Your task to perform on an android device: set the timer Image 0: 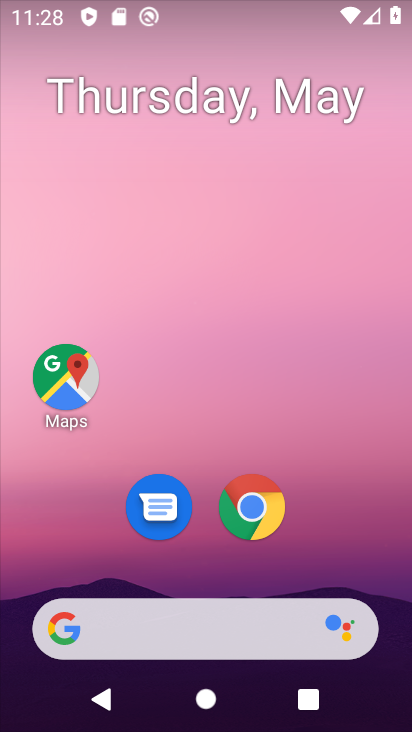
Step 0: drag from (281, 644) to (363, 4)
Your task to perform on an android device: set the timer Image 1: 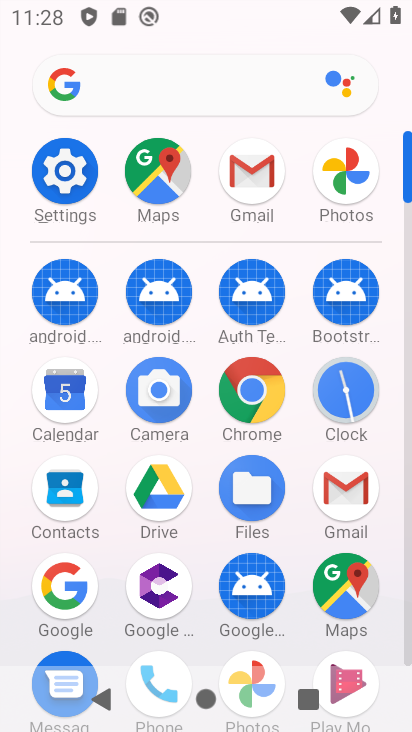
Step 1: click (360, 386)
Your task to perform on an android device: set the timer Image 2: 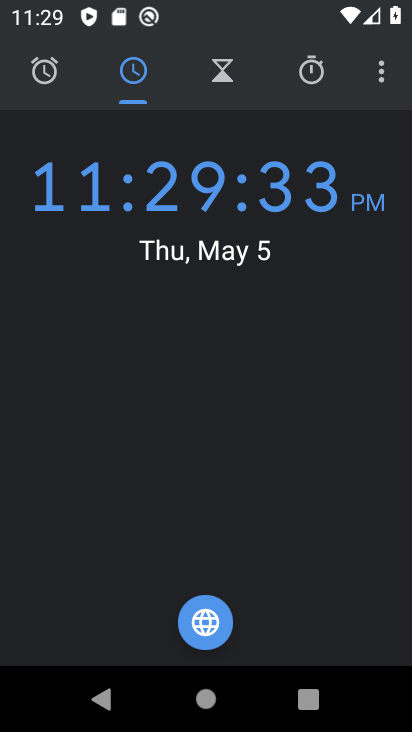
Step 2: click (313, 72)
Your task to perform on an android device: set the timer Image 3: 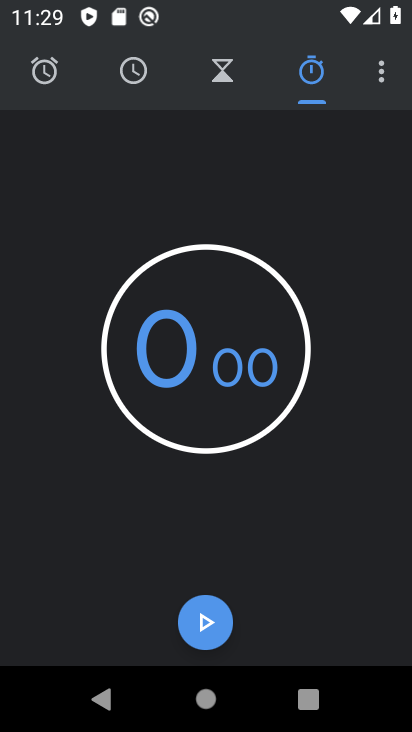
Step 3: click (237, 79)
Your task to perform on an android device: set the timer Image 4: 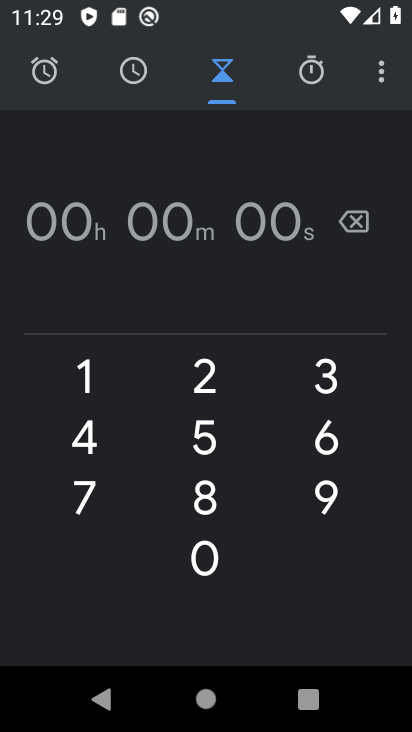
Step 4: click (190, 371)
Your task to perform on an android device: set the timer Image 5: 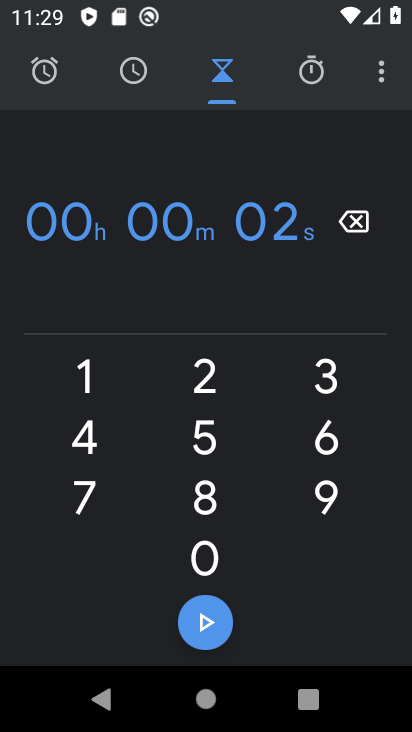
Step 5: click (198, 624)
Your task to perform on an android device: set the timer Image 6: 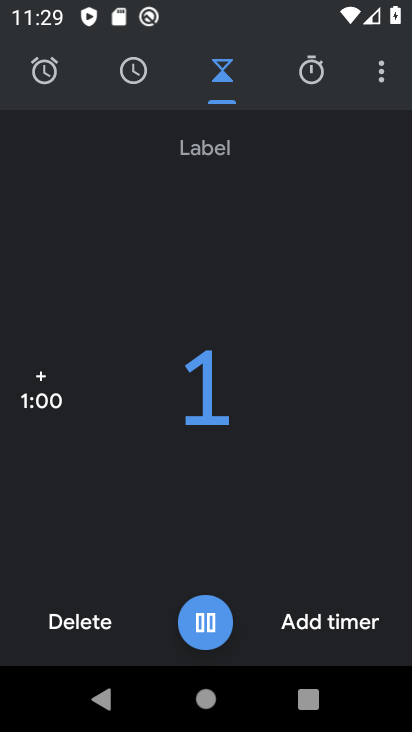
Step 6: task complete